Your task to perform on an android device: clear all cookies in the chrome app Image 0: 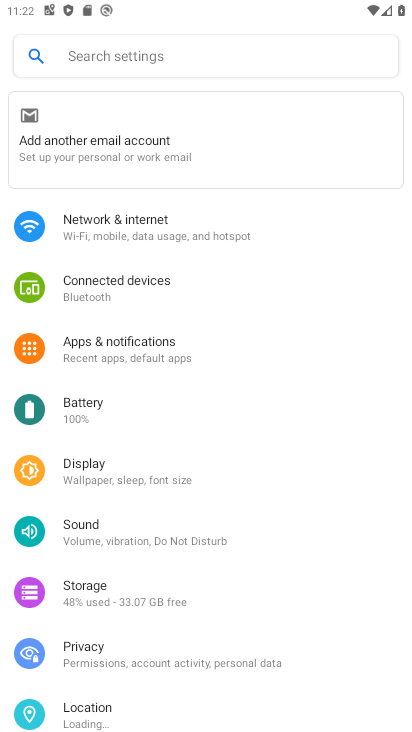
Step 0: press home button
Your task to perform on an android device: clear all cookies in the chrome app Image 1: 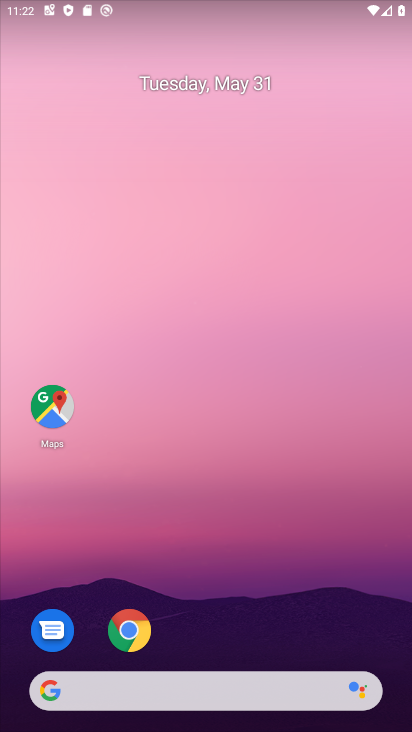
Step 1: click (134, 632)
Your task to perform on an android device: clear all cookies in the chrome app Image 2: 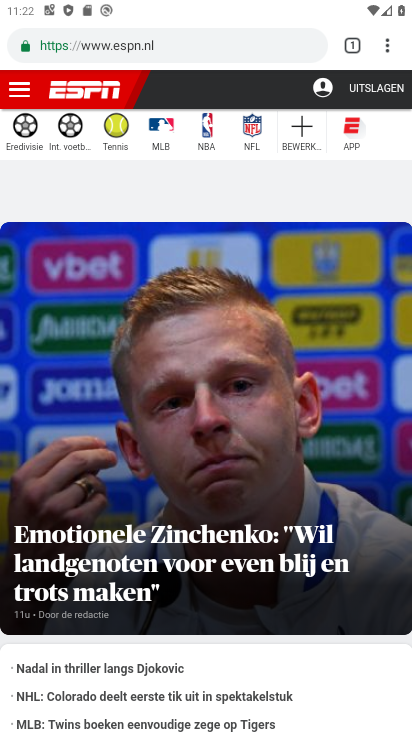
Step 2: click (390, 58)
Your task to perform on an android device: clear all cookies in the chrome app Image 3: 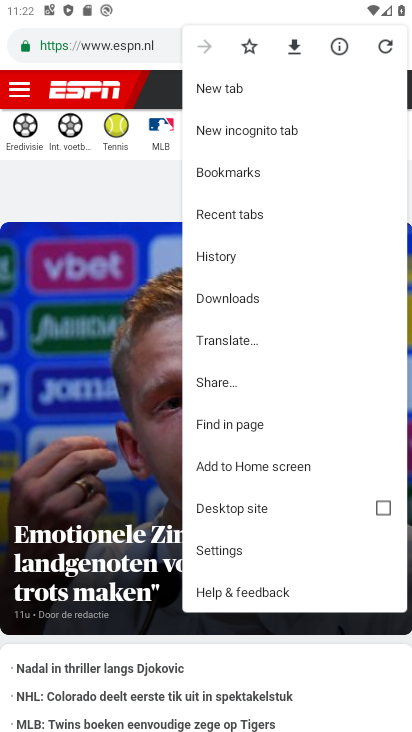
Step 3: click (230, 559)
Your task to perform on an android device: clear all cookies in the chrome app Image 4: 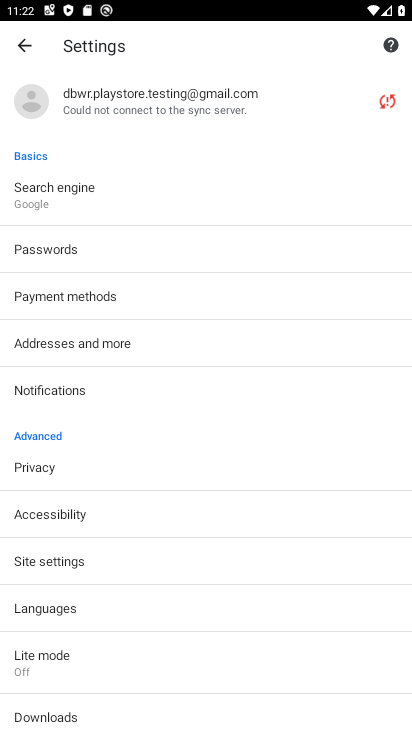
Step 4: click (50, 478)
Your task to perform on an android device: clear all cookies in the chrome app Image 5: 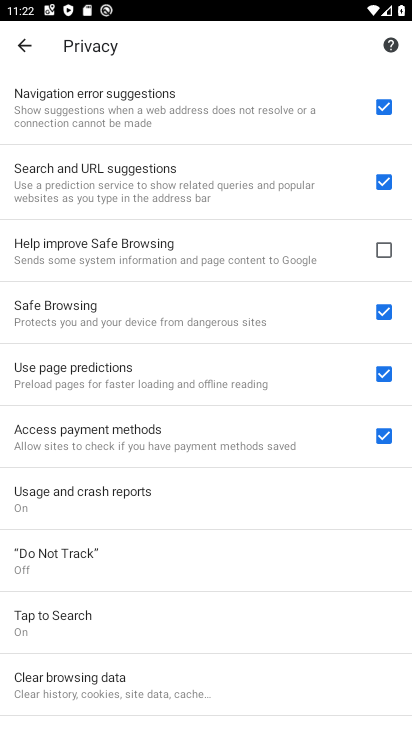
Step 5: click (208, 696)
Your task to perform on an android device: clear all cookies in the chrome app Image 6: 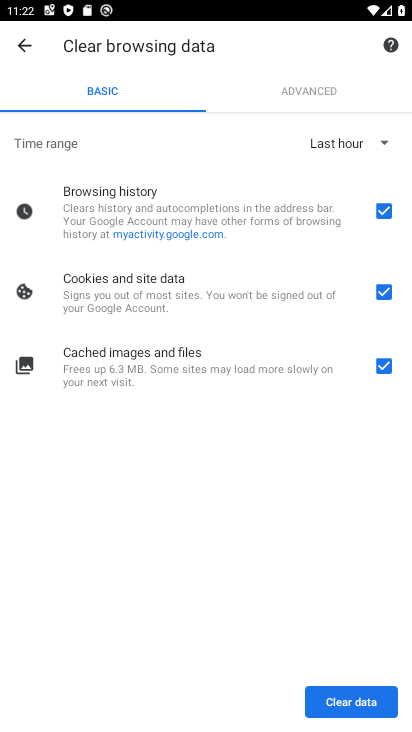
Step 6: click (384, 371)
Your task to perform on an android device: clear all cookies in the chrome app Image 7: 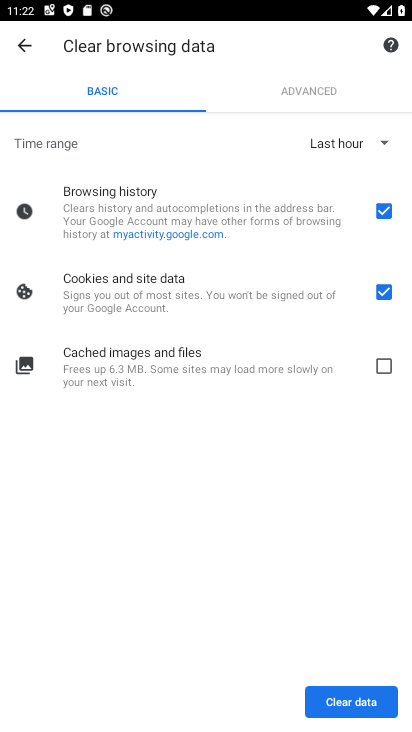
Step 7: click (382, 215)
Your task to perform on an android device: clear all cookies in the chrome app Image 8: 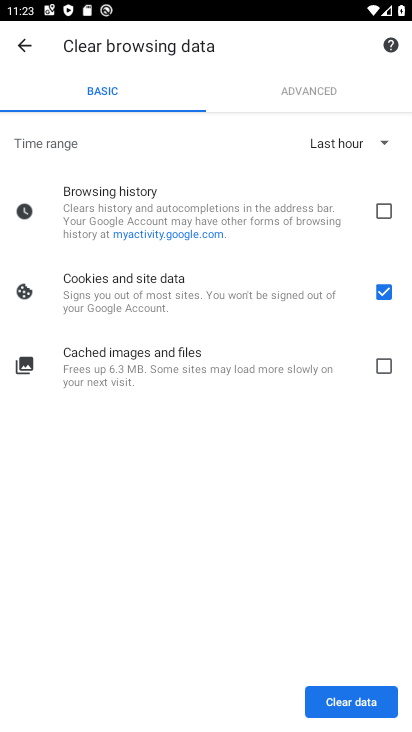
Step 8: click (374, 695)
Your task to perform on an android device: clear all cookies in the chrome app Image 9: 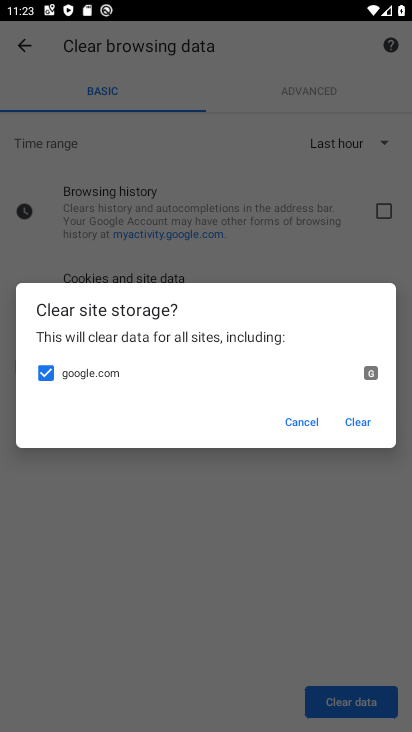
Step 9: click (352, 421)
Your task to perform on an android device: clear all cookies in the chrome app Image 10: 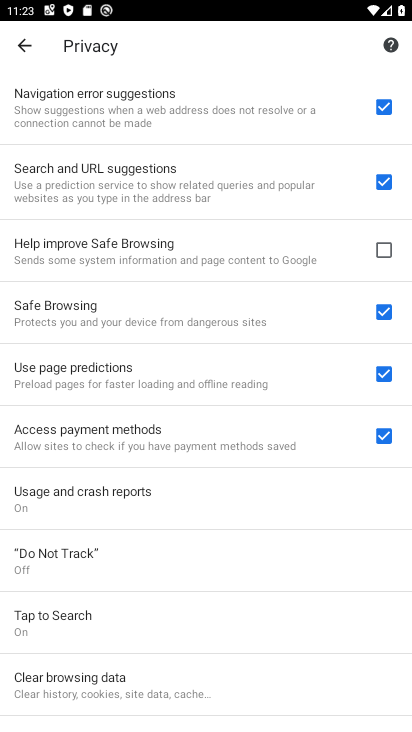
Step 10: task complete